Your task to perform on an android device: turn off notifications in google photos Image 0: 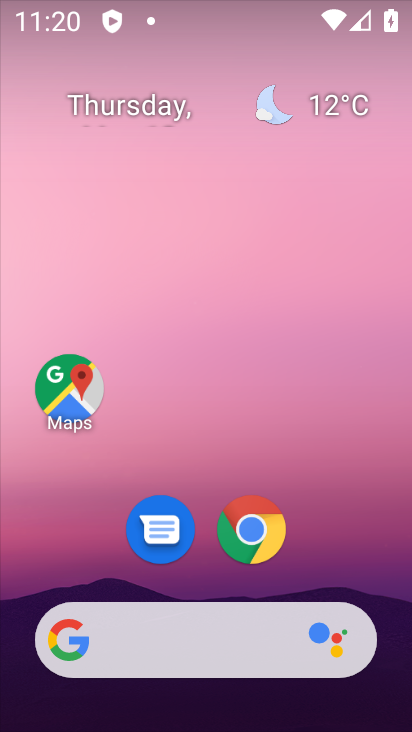
Step 0: drag from (336, 490) to (297, 239)
Your task to perform on an android device: turn off notifications in google photos Image 1: 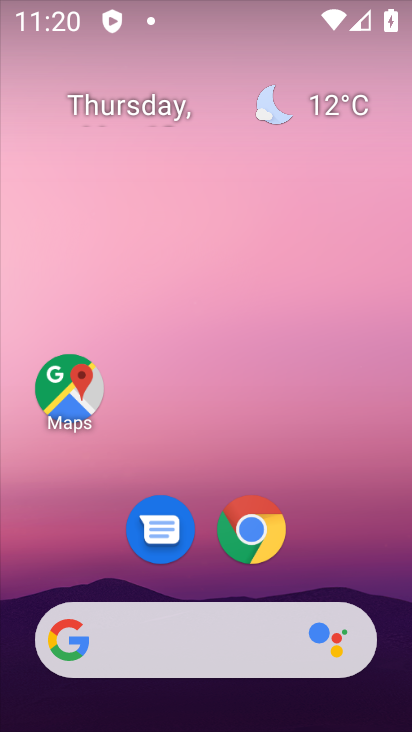
Step 1: drag from (316, 344) to (289, 210)
Your task to perform on an android device: turn off notifications in google photos Image 2: 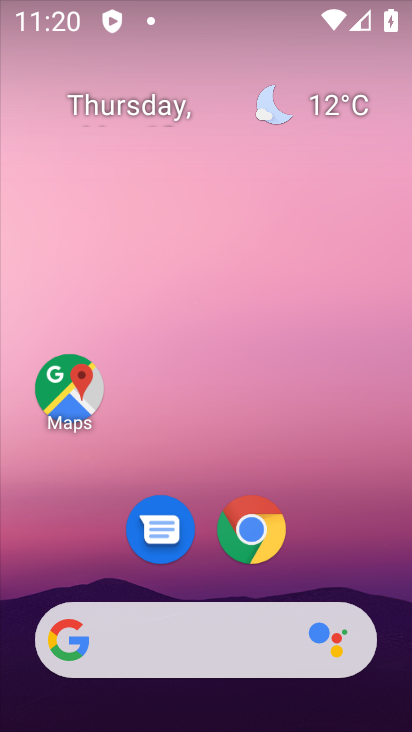
Step 2: drag from (262, 439) to (254, 157)
Your task to perform on an android device: turn off notifications in google photos Image 3: 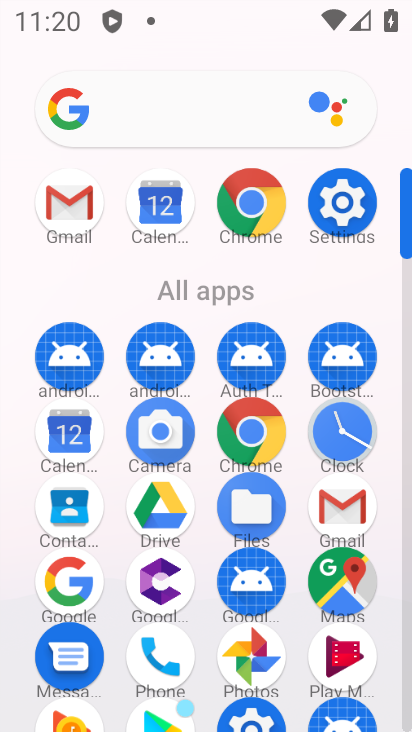
Step 3: click (247, 651)
Your task to perform on an android device: turn off notifications in google photos Image 4: 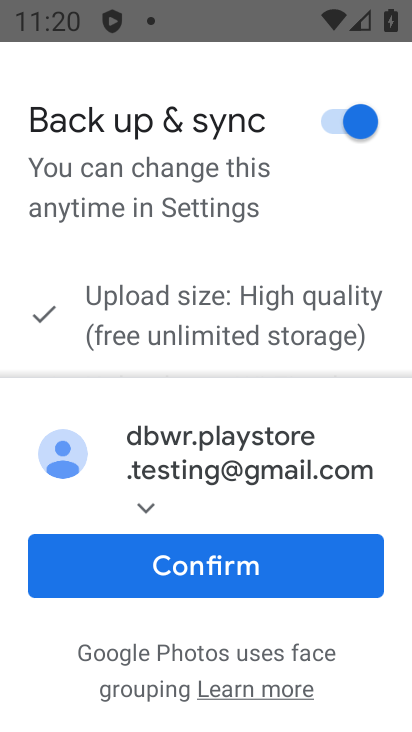
Step 4: click (185, 578)
Your task to perform on an android device: turn off notifications in google photos Image 5: 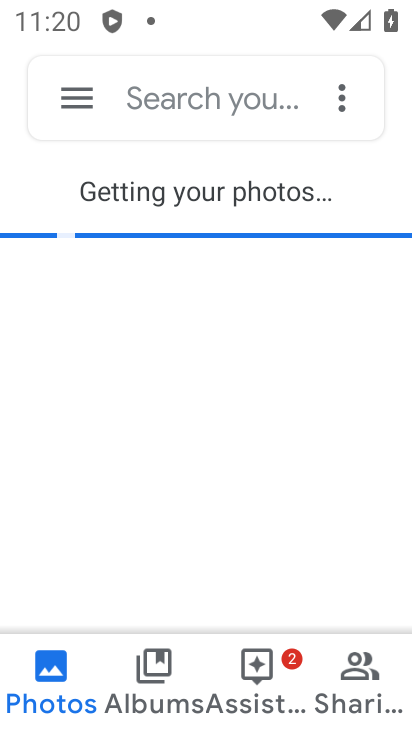
Step 5: click (82, 103)
Your task to perform on an android device: turn off notifications in google photos Image 6: 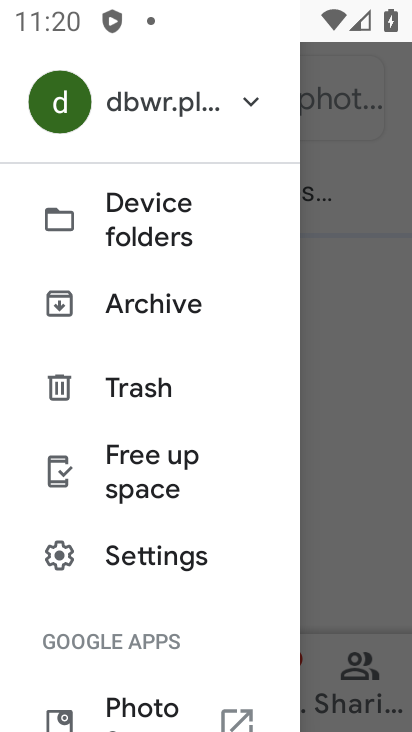
Step 6: drag from (150, 607) to (222, 188)
Your task to perform on an android device: turn off notifications in google photos Image 7: 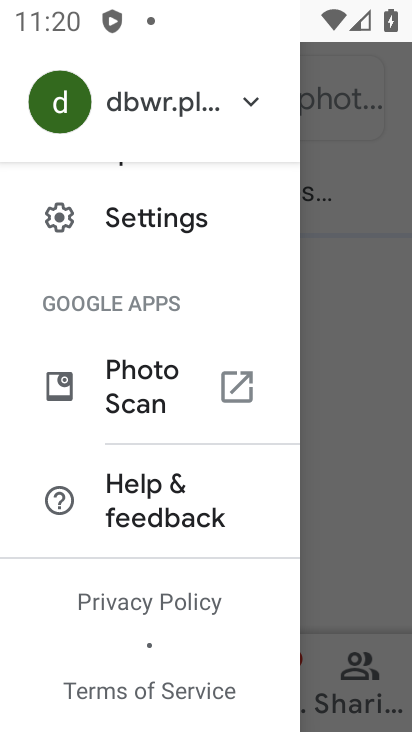
Step 7: click (118, 218)
Your task to perform on an android device: turn off notifications in google photos Image 8: 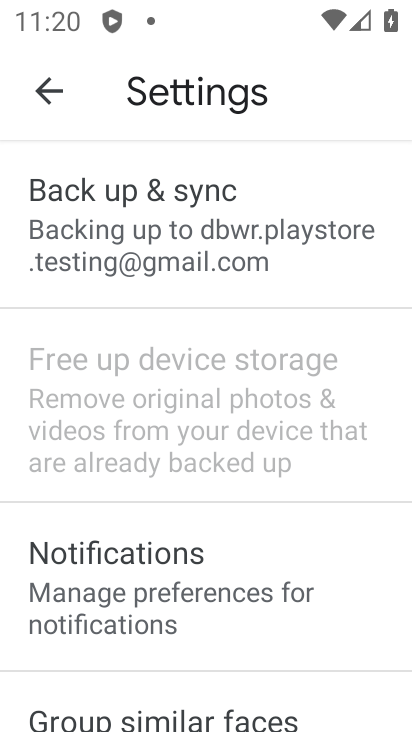
Step 8: click (204, 599)
Your task to perform on an android device: turn off notifications in google photos Image 9: 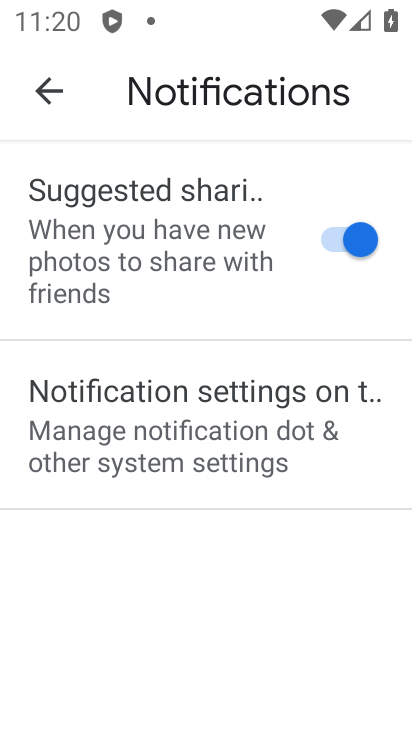
Step 9: click (131, 413)
Your task to perform on an android device: turn off notifications in google photos Image 10: 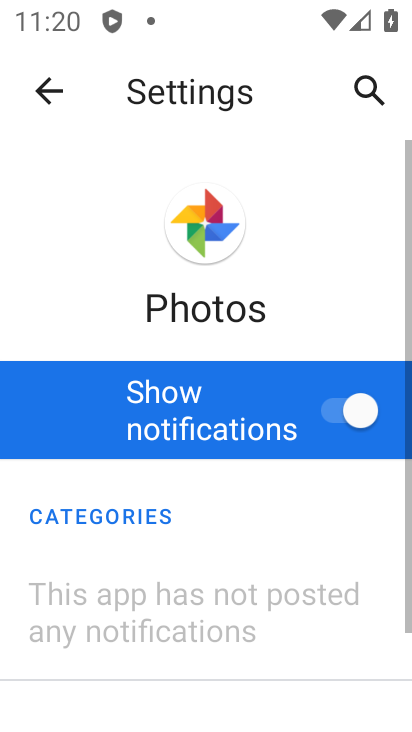
Step 10: click (337, 405)
Your task to perform on an android device: turn off notifications in google photos Image 11: 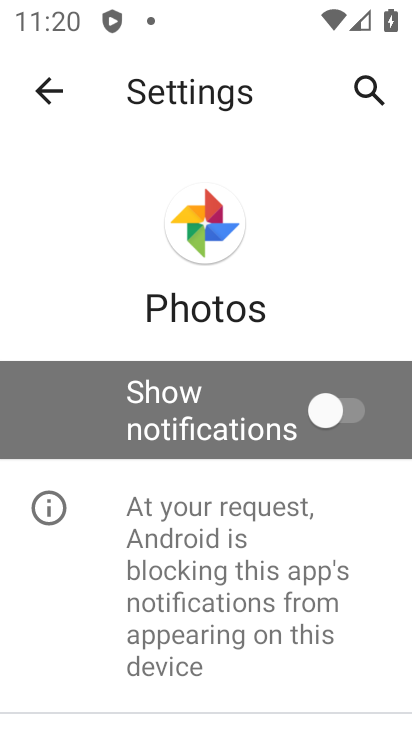
Step 11: task complete